Your task to perform on an android device: Do I have any events today? Image 0: 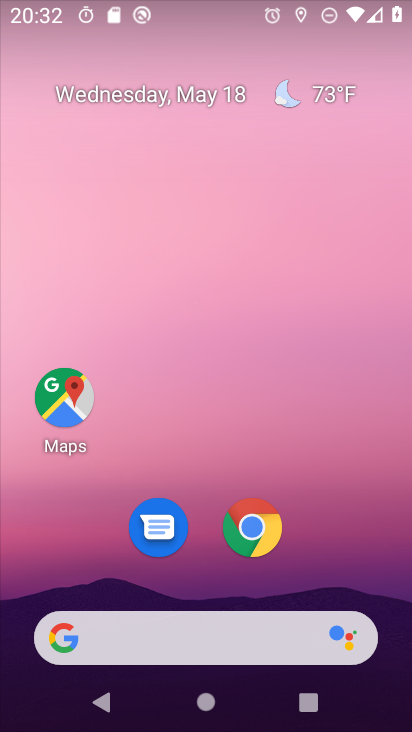
Step 0: drag from (400, 665) to (379, 72)
Your task to perform on an android device: Do I have any events today? Image 1: 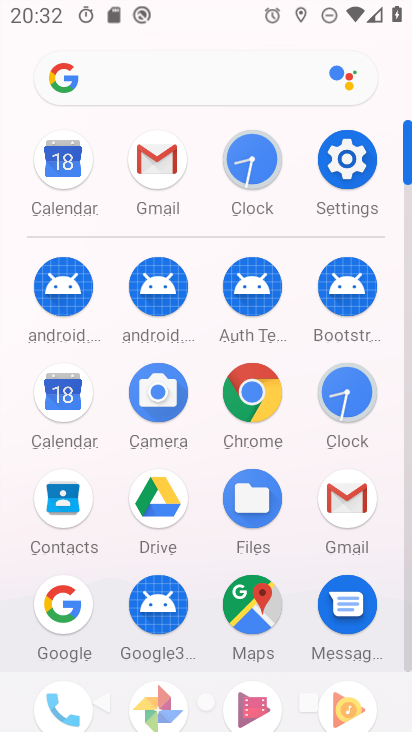
Step 1: click (60, 417)
Your task to perform on an android device: Do I have any events today? Image 2: 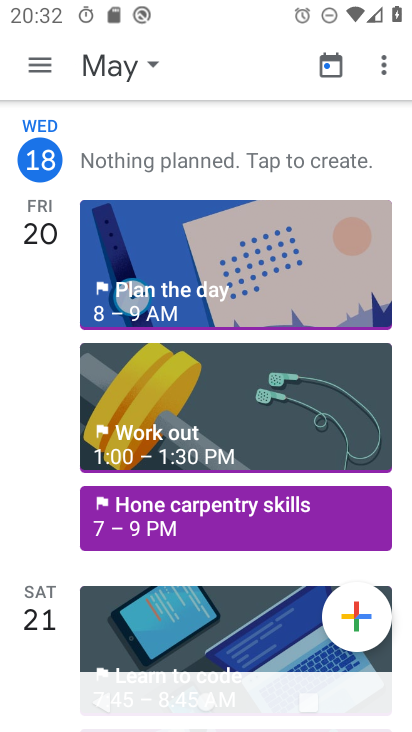
Step 2: task complete